Your task to perform on an android device: Go to location settings Image 0: 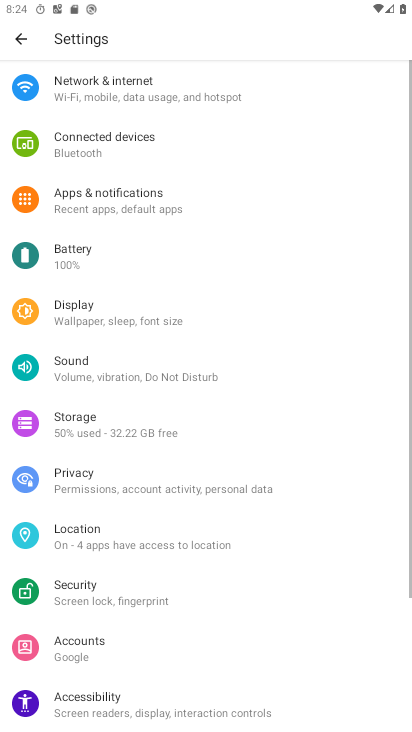
Step 0: press home button
Your task to perform on an android device: Go to location settings Image 1: 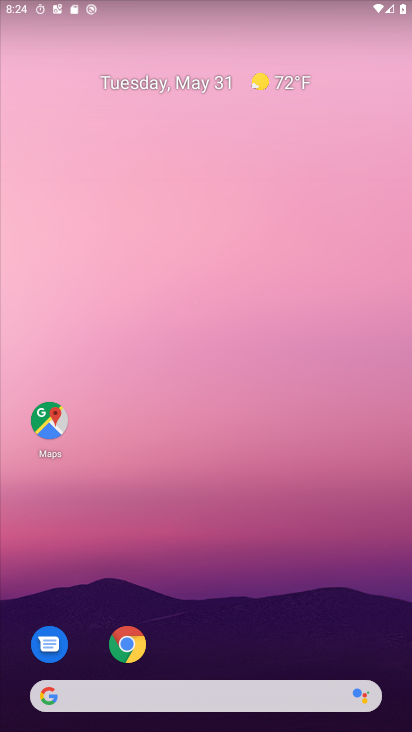
Step 1: drag from (215, 643) to (243, 76)
Your task to perform on an android device: Go to location settings Image 2: 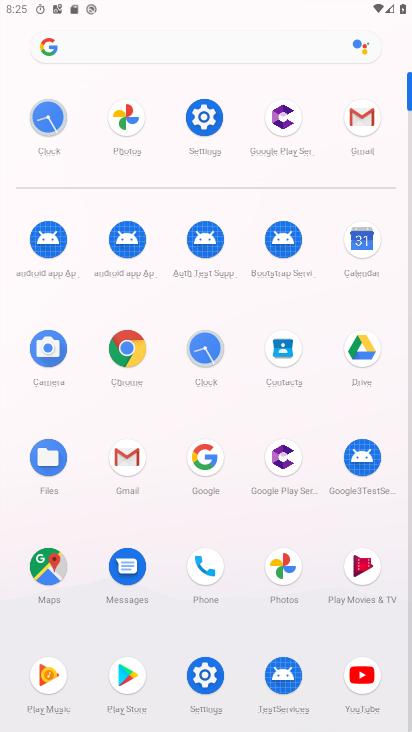
Step 2: click (202, 113)
Your task to perform on an android device: Go to location settings Image 3: 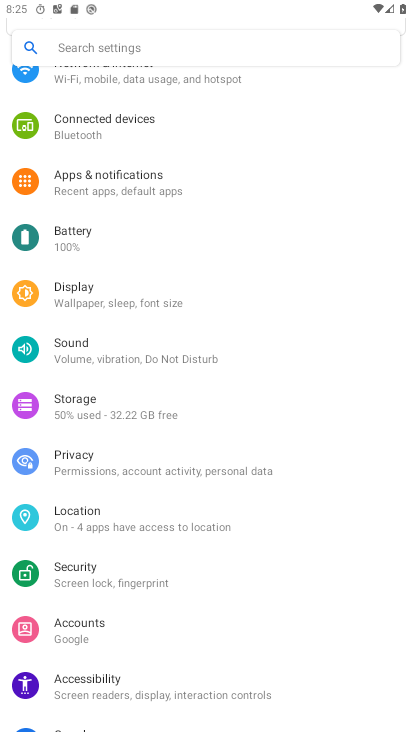
Step 3: click (118, 512)
Your task to perform on an android device: Go to location settings Image 4: 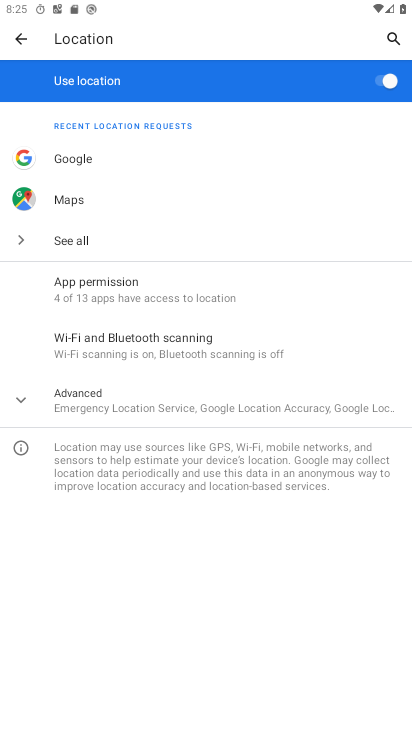
Step 4: click (24, 404)
Your task to perform on an android device: Go to location settings Image 5: 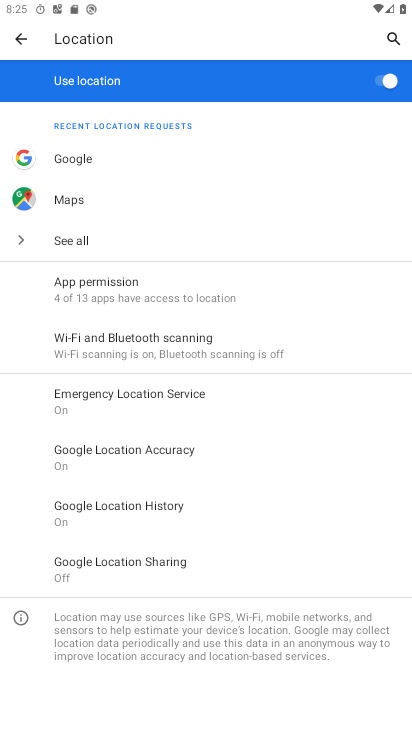
Step 5: task complete